Your task to perform on an android device: See recent photos Image 0: 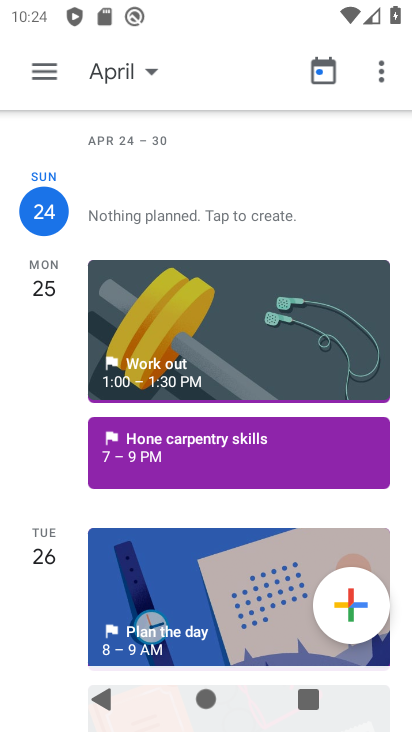
Step 0: press home button
Your task to perform on an android device: See recent photos Image 1: 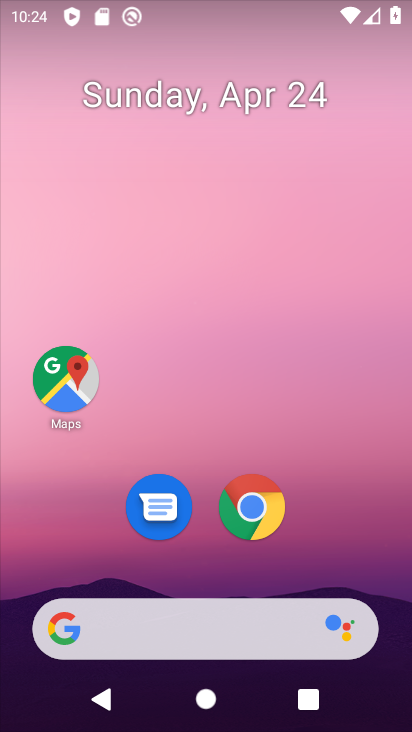
Step 1: drag from (349, 501) to (52, 249)
Your task to perform on an android device: See recent photos Image 2: 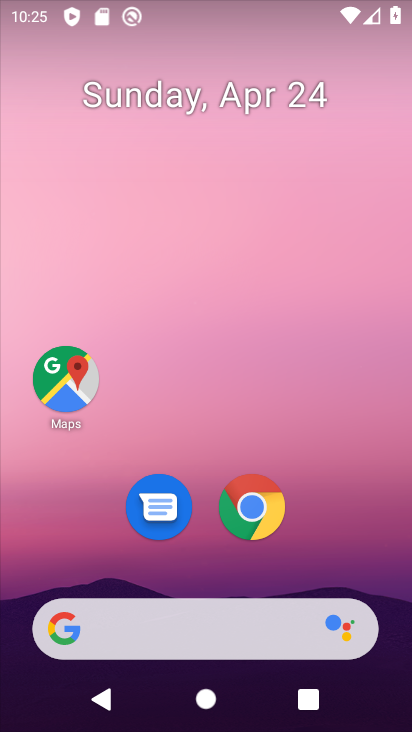
Step 2: click (51, 245)
Your task to perform on an android device: See recent photos Image 3: 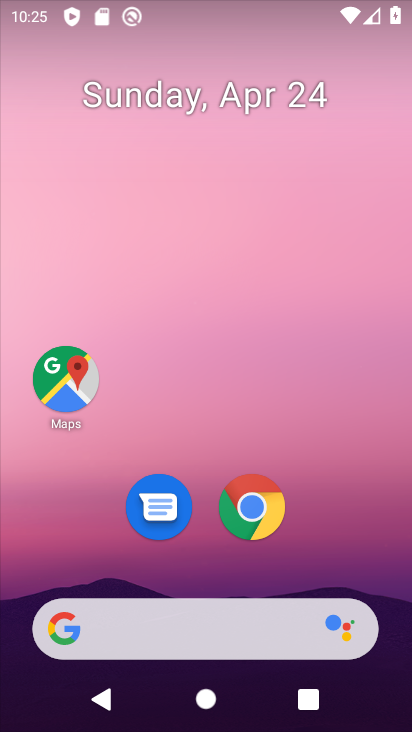
Step 3: drag from (238, 383) to (233, 94)
Your task to perform on an android device: See recent photos Image 4: 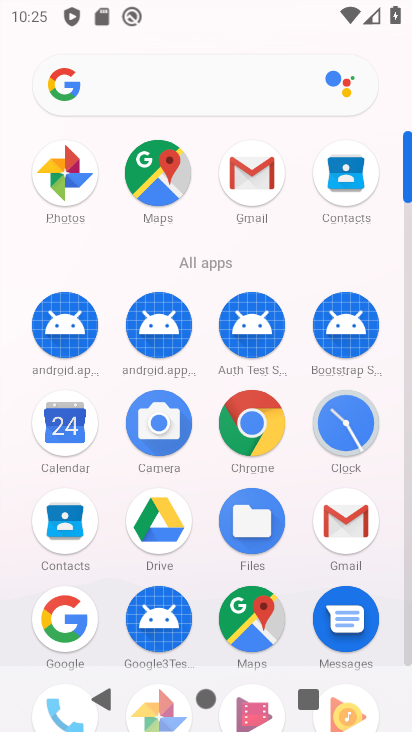
Step 4: drag from (120, 283) to (208, 94)
Your task to perform on an android device: See recent photos Image 5: 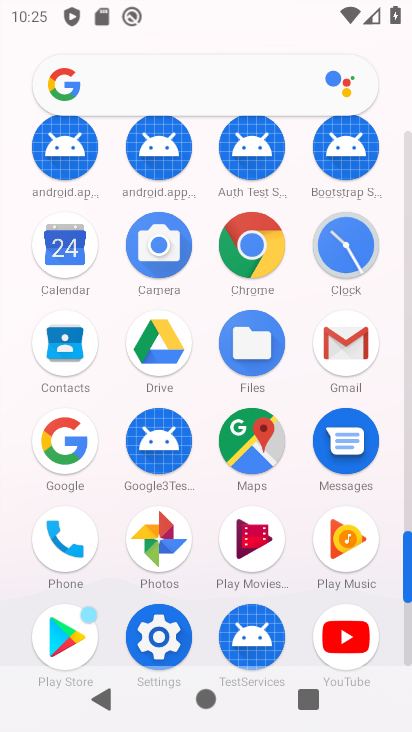
Step 5: click (157, 555)
Your task to perform on an android device: See recent photos Image 6: 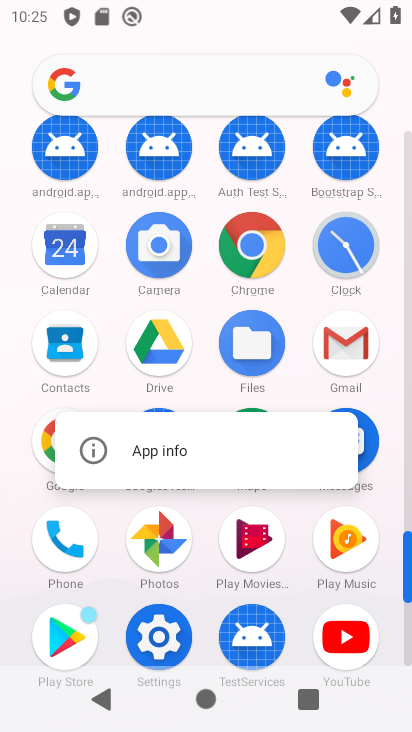
Step 6: click (157, 555)
Your task to perform on an android device: See recent photos Image 7: 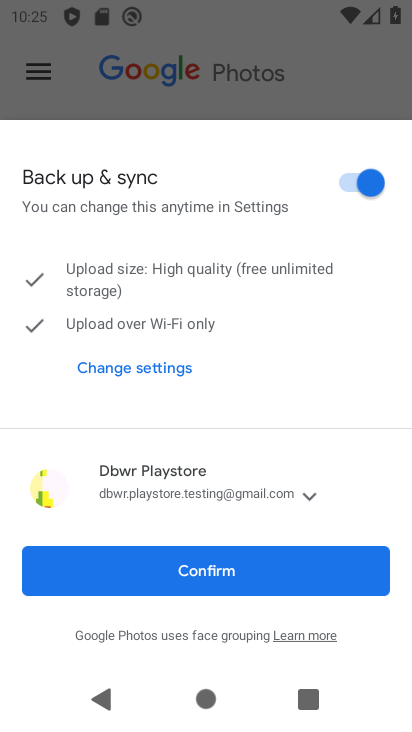
Step 7: click (181, 573)
Your task to perform on an android device: See recent photos Image 8: 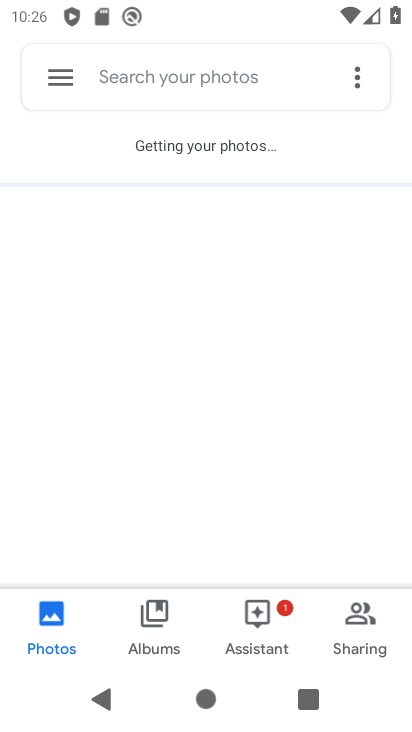
Step 8: click (62, 617)
Your task to perform on an android device: See recent photos Image 9: 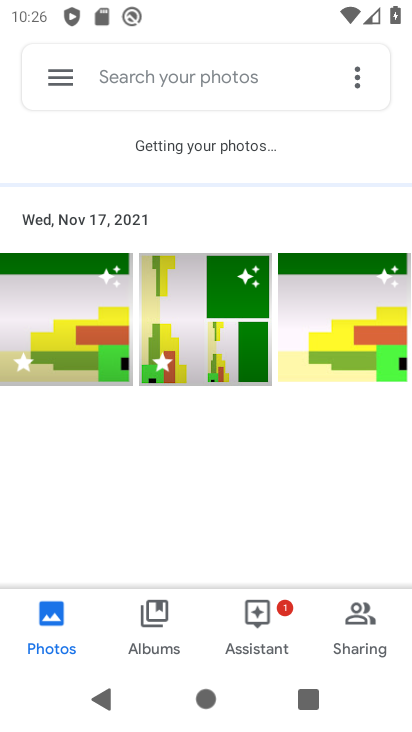
Step 9: click (32, 312)
Your task to perform on an android device: See recent photos Image 10: 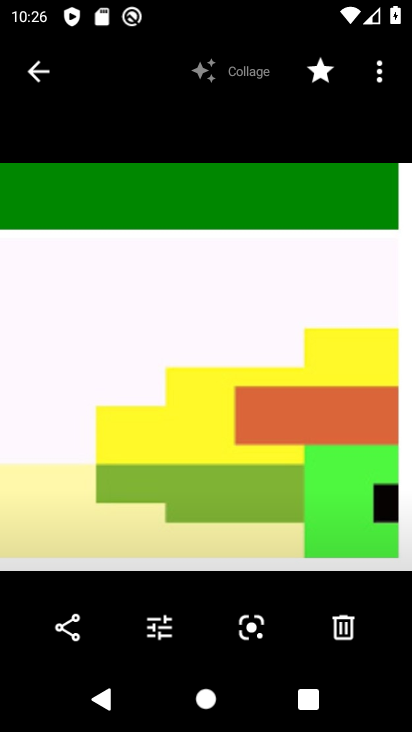
Step 10: task complete